Your task to perform on an android device: Go to calendar. Show me events next week Image 0: 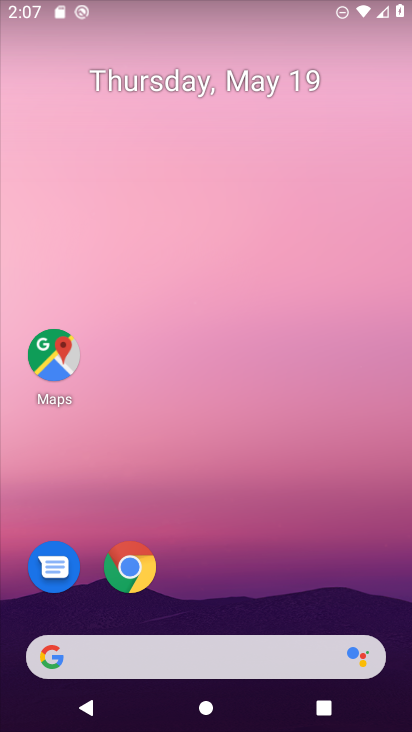
Step 0: drag from (252, 517) to (249, 92)
Your task to perform on an android device: Go to calendar. Show me events next week Image 1: 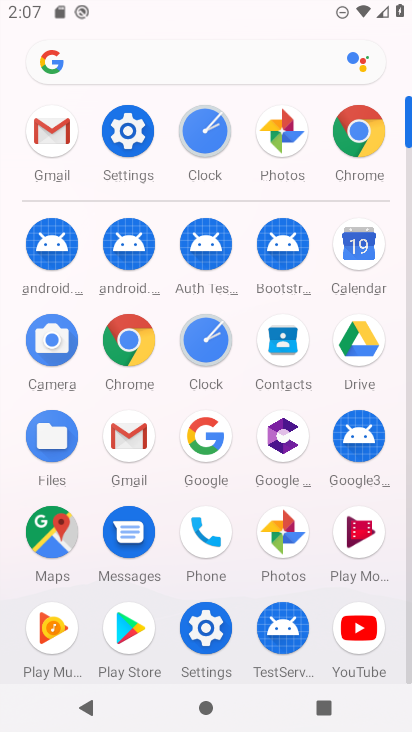
Step 1: click (363, 250)
Your task to perform on an android device: Go to calendar. Show me events next week Image 2: 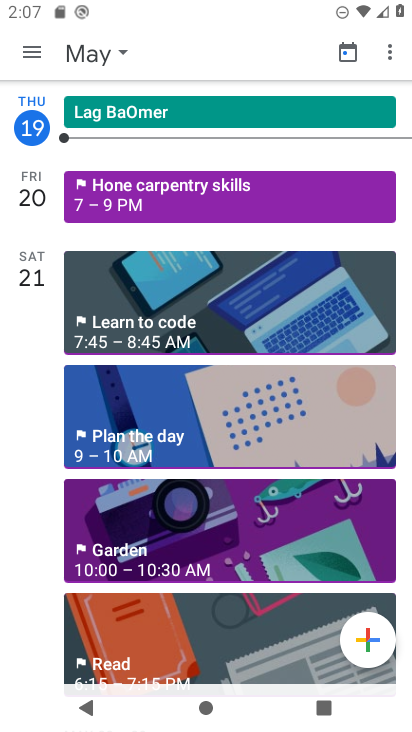
Step 2: click (34, 45)
Your task to perform on an android device: Go to calendar. Show me events next week Image 3: 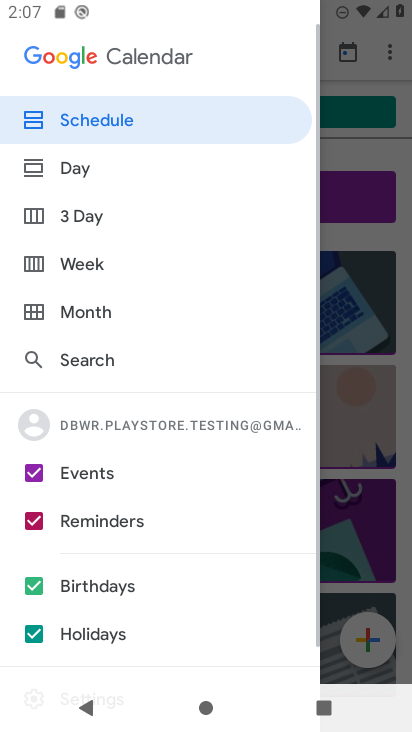
Step 3: click (35, 257)
Your task to perform on an android device: Go to calendar. Show me events next week Image 4: 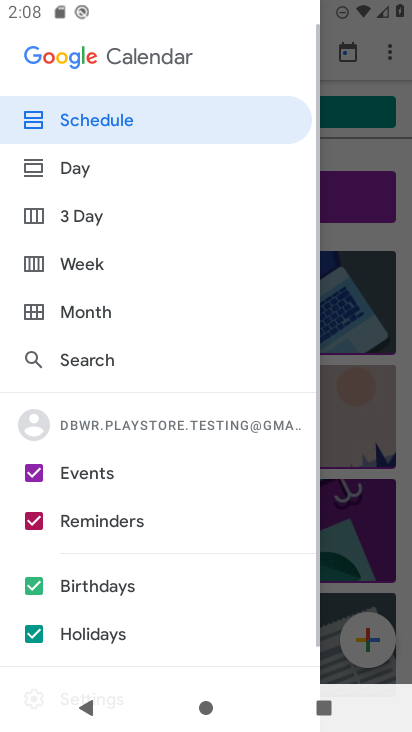
Step 4: click (35, 260)
Your task to perform on an android device: Go to calendar. Show me events next week Image 5: 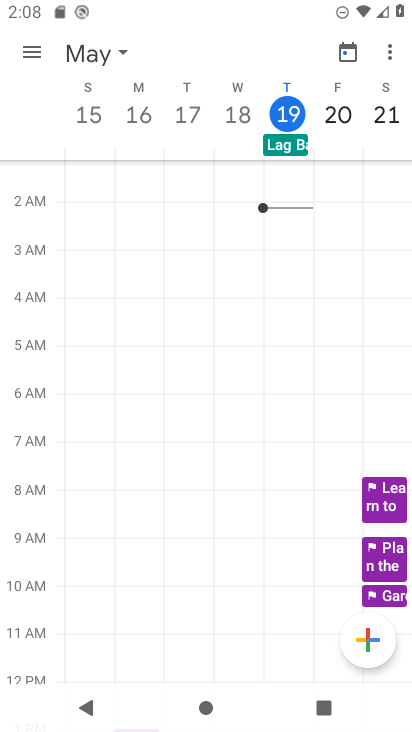
Step 5: task complete